Your task to perform on an android device: Open display settings Image 0: 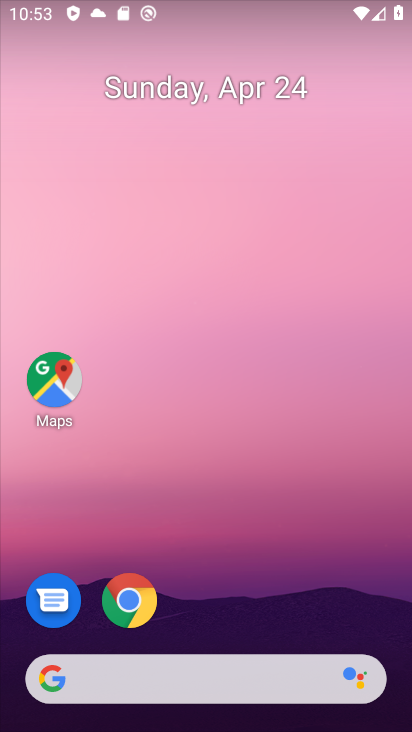
Step 0: drag from (264, 536) to (211, 44)
Your task to perform on an android device: Open display settings Image 1: 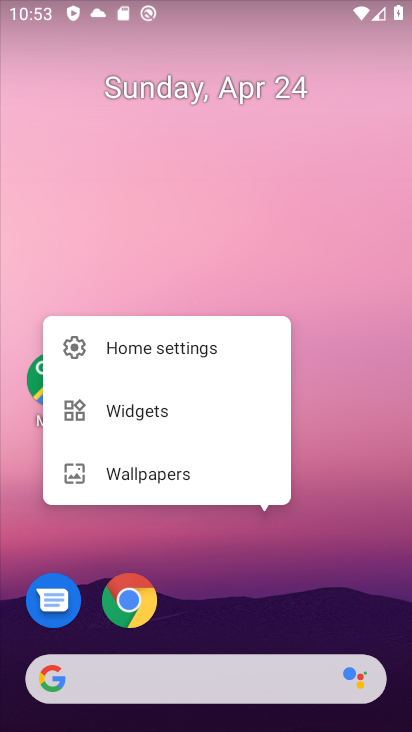
Step 1: click (246, 635)
Your task to perform on an android device: Open display settings Image 2: 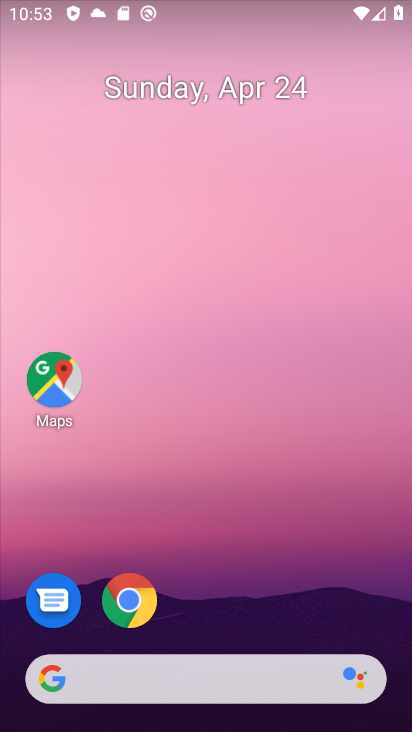
Step 2: drag from (246, 635) to (237, 79)
Your task to perform on an android device: Open display settings Image 3: 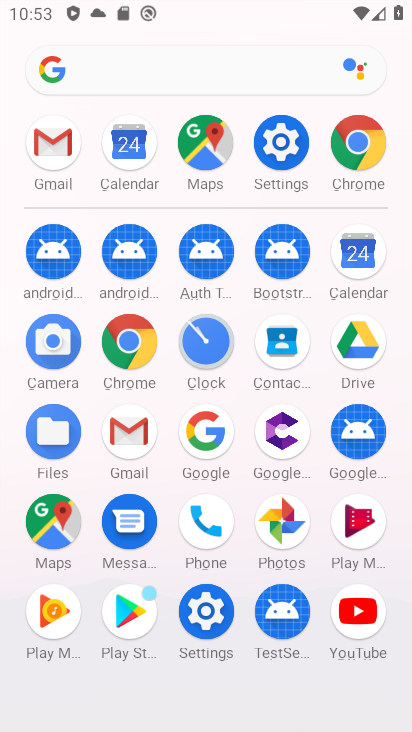
Step 3: click (280, 134)
Your task to perform on an android device: Open display settings Image 4: 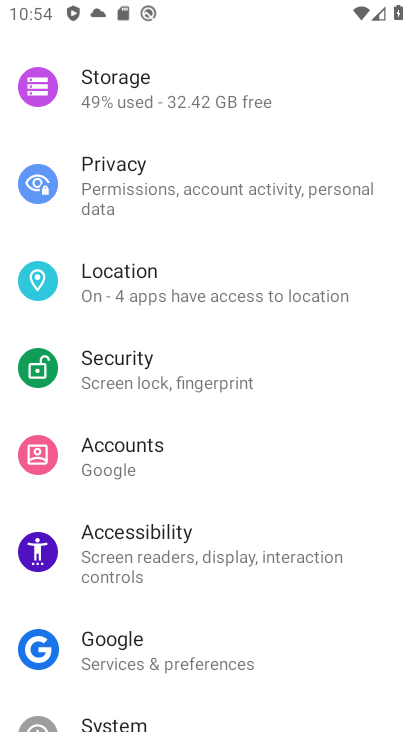
Step 4: drag from (244, 191) to (259, 721)
Your task to perform on an android device: Open display settings Image 5: 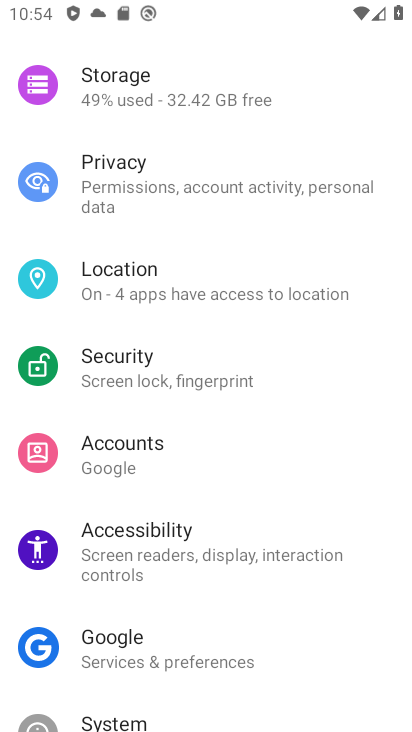
Step 5: drag from (188, 221) to (260, 547)
Your task to perform on an android device: Open display settings Image 6: 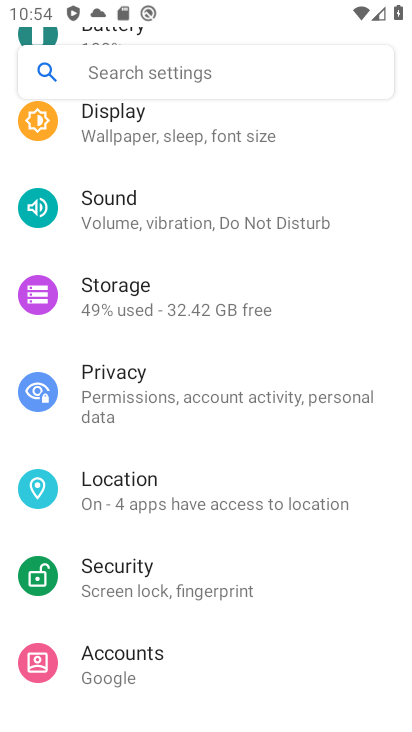
Step 6: drag from (166, 177) to (225, 527)
Your task to perform on an android device: Open display settings Image 7: 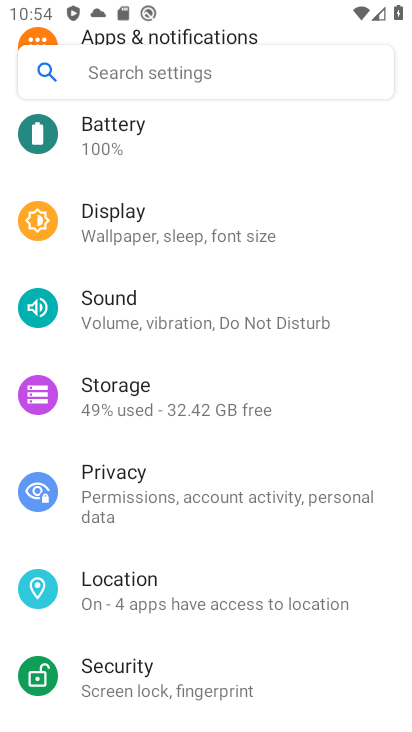
Step 7: click (105, 217)
Your task to perform on an android device: Open display settings Image 8: 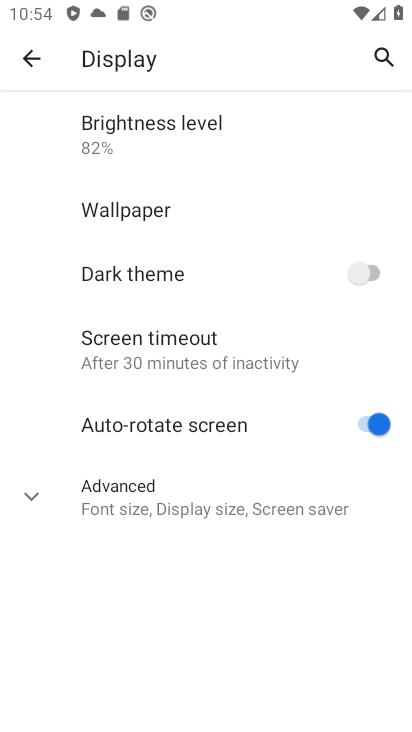
Step 8: task complete